Your task to perform on an android device: Show me productivity apps on the Play Store Image 0: 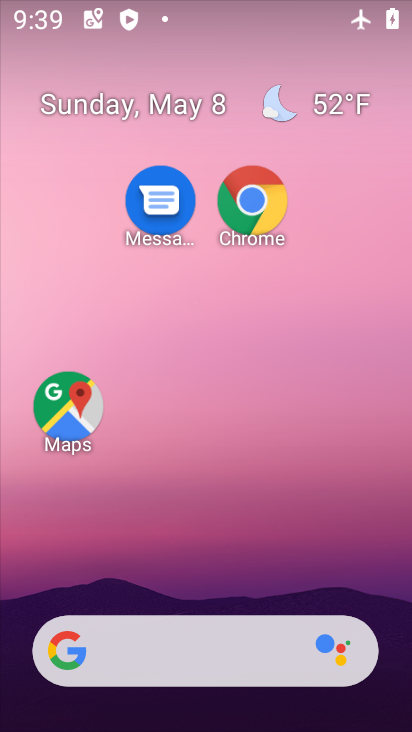
Step 0: drag from (206, 617) to (242, 7)
Your task to perform on an android device: Show me productivity apps on the Play Store Image 1: 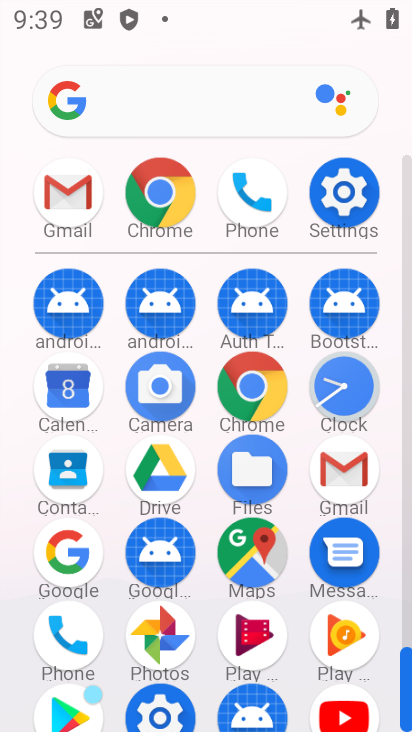
Step 1: click (88, 702)
Your task to perform on an android device: Show me productivity apps on the Play Store Image 2: 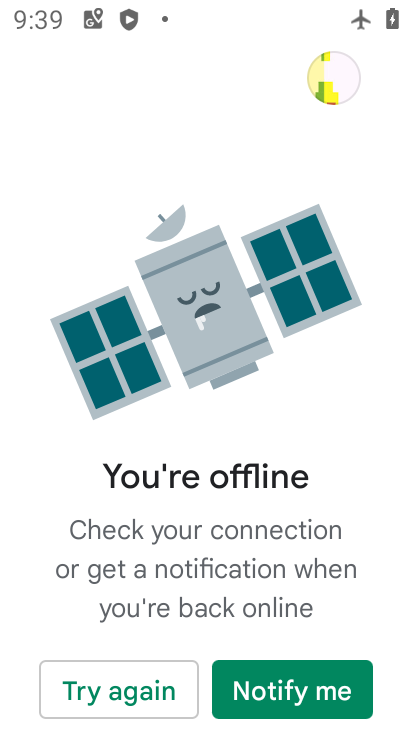
Step 2: click (114, 676)
Your task to perform on an android device: Show me productivity apps on the Play Store Image 3: 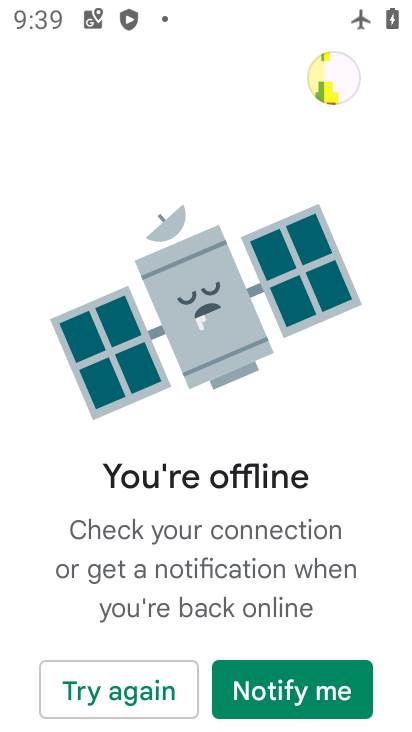
Step 3: task complete